Your task to perform on an android device: What's the news in Sri Lanka? Image 0: 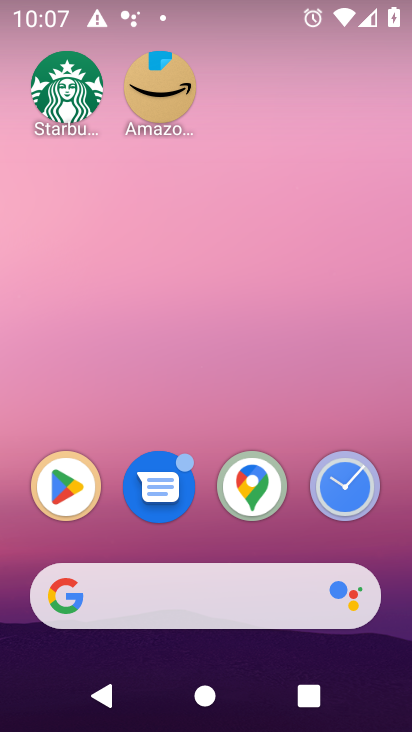
Step 0: drag from (259, 635) to (271, 40)
Your task to perform on an android device: What's the news in Sri Lanka? Image 1: 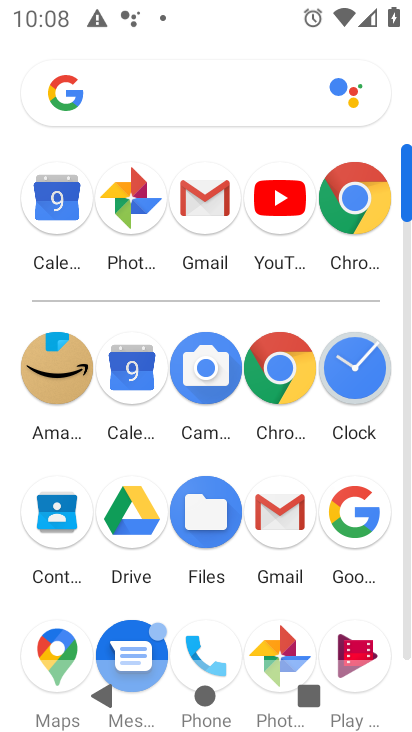
Step 1: click (377, 504)
Your task to perform on an android device: What's the news in Sri Lanka? Image 2: 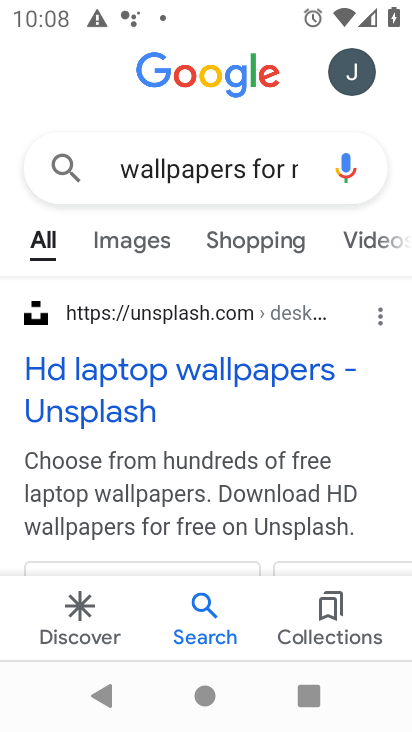
Step 2: click (308, 168)
Your task to perform on an android device: What's the news in Sri Lanka? Image 3: 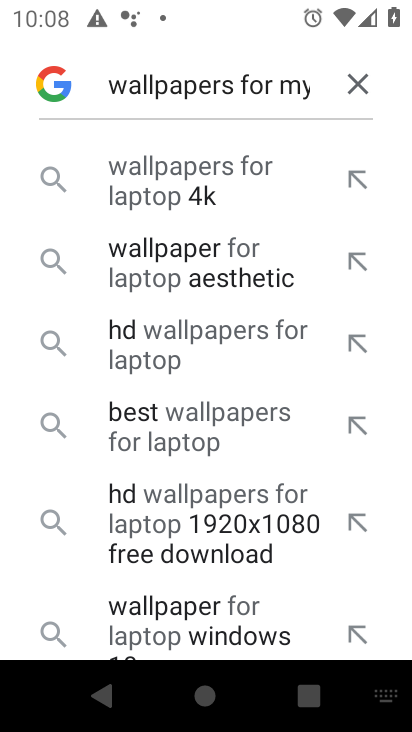
Step 3: click (367, 90)
Your task to perform on an android device: What's the news in Sri Lanka? Image 4: 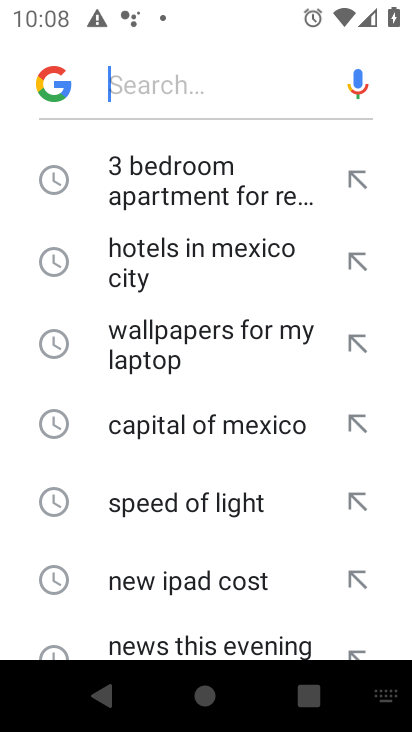
Step 4: type "What's the news in Sri Lanka"
Your task to perform on an android device: What's the news in Sri Lanka? Image 5: 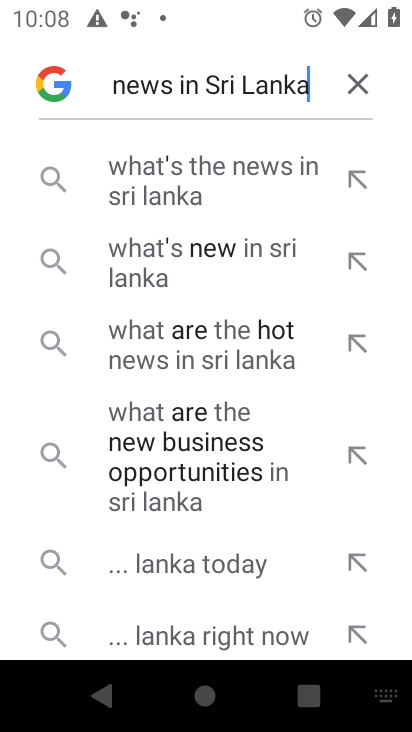
Step 5: click (212, 166)
Your task to perform on an android device: What's the news in Sri Lanka? Image 6: 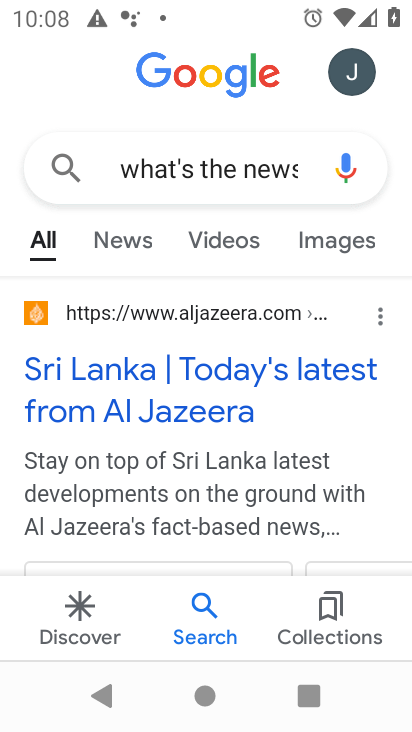
Step 6: task complete